Your task to perform on an android device: turn on airplane mode Image 0: 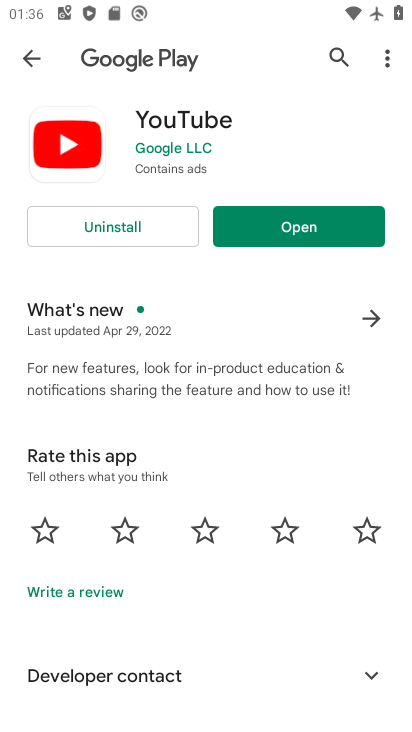
Step 0: press home button
Your task to perform on an android device: turn on airplane mode Image 1: 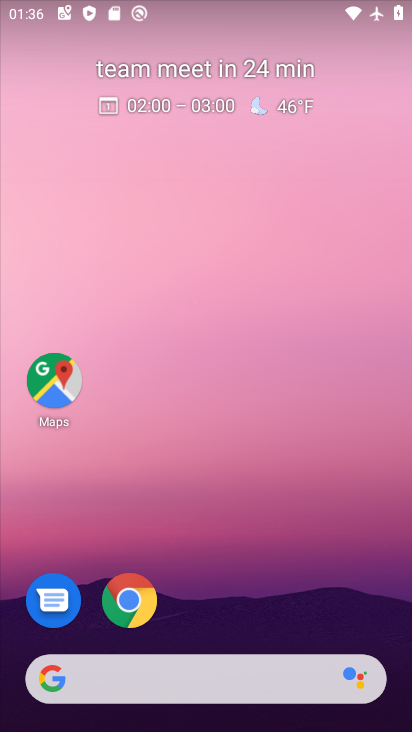
Step 1: drag from (208, 639) to (176, 109)
Your task to perform on an android device: turn on airplane mode Image 2: 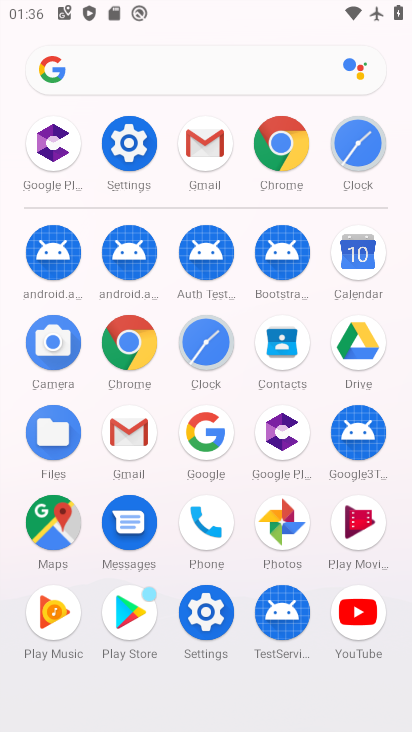
Step 2: click (120, 153)
Your task to perform on an android device: turn on airplane mode Image 3: 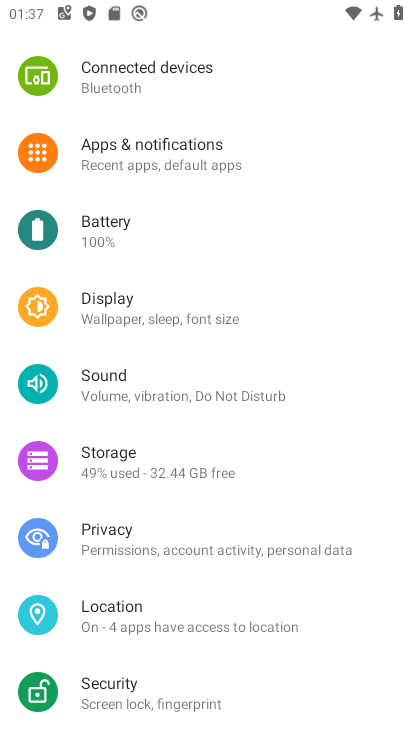
Step 3: drag from (121, 152) to (162, 589)
Your task to perform on an android device: turn on airplane mode Image 4: 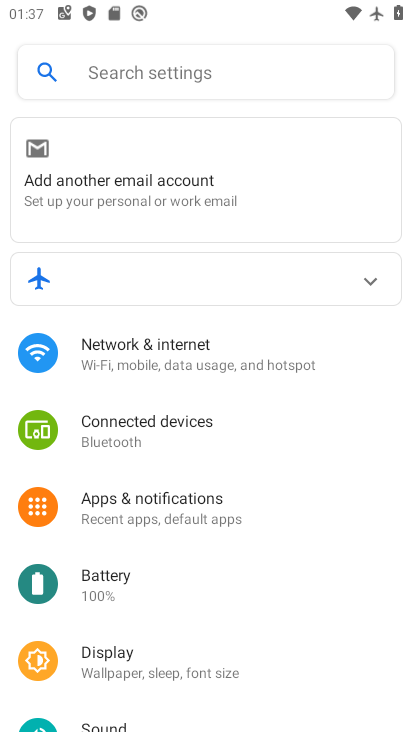
Step 4: click (168, 342)
Your task to perform on an android device: turn on airplane mode Image 5: 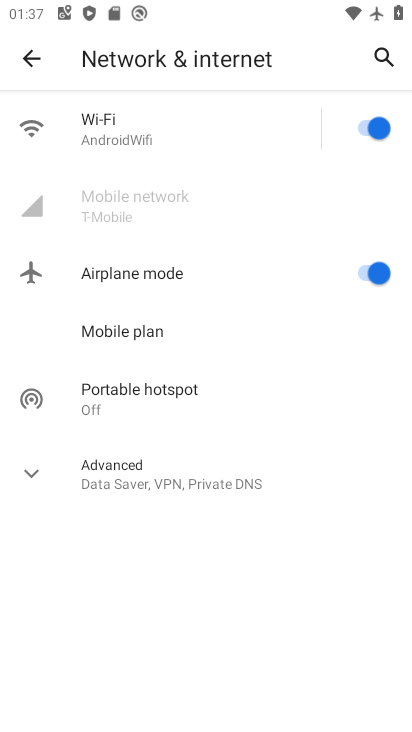
Step 5: task complete